Your task to perform on an android device: What's the weather? Image 0: 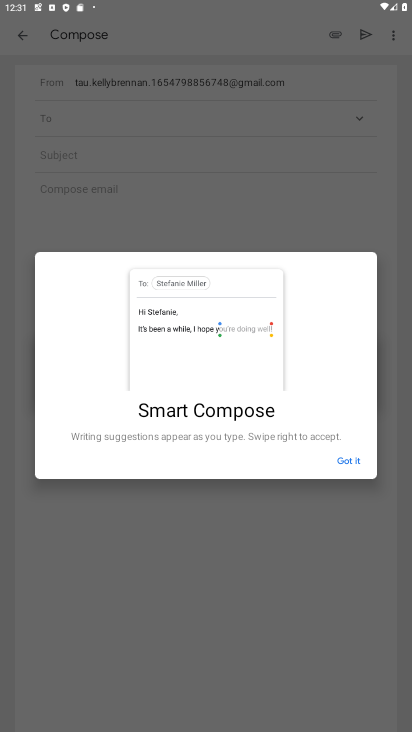
Step 0: press home button
Your task to perform on an android device: What's the weather? Image 1: 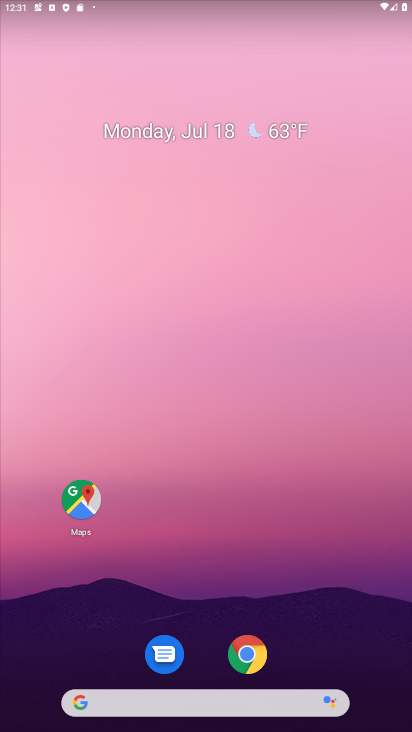
Step 1: drag from (221, 608) to (172, 121)
Your task to perform on an android device: What's the weather? Image 2: 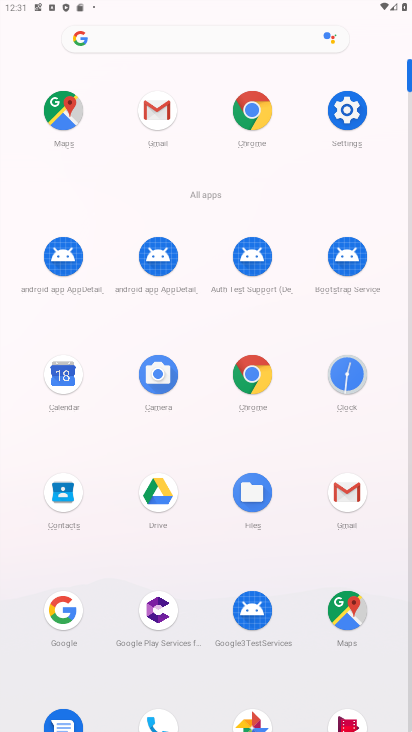
Step 2: click (75, 600)
Your task to perform on an android device: What's the weather? Image 3: 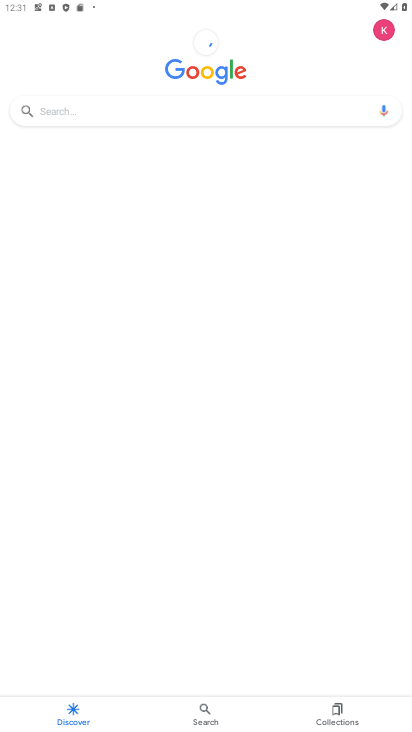
Step 3: click (164, 116)
Your task to perform on an android device: What's the weather? Image 4: 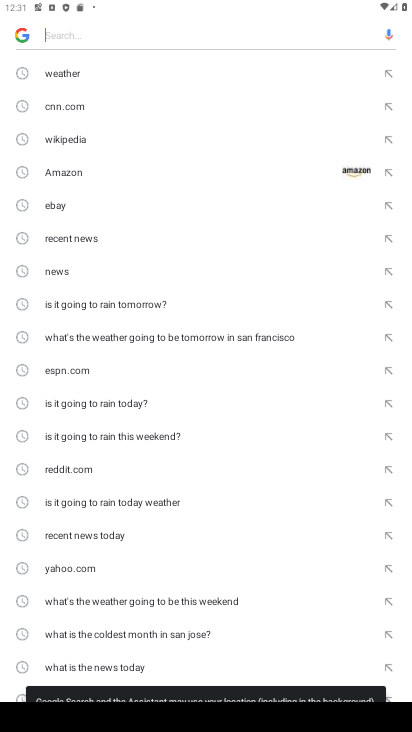
Step 4: click (55, 72)
Your task to perform on an android device: What's the weather? Image 5: 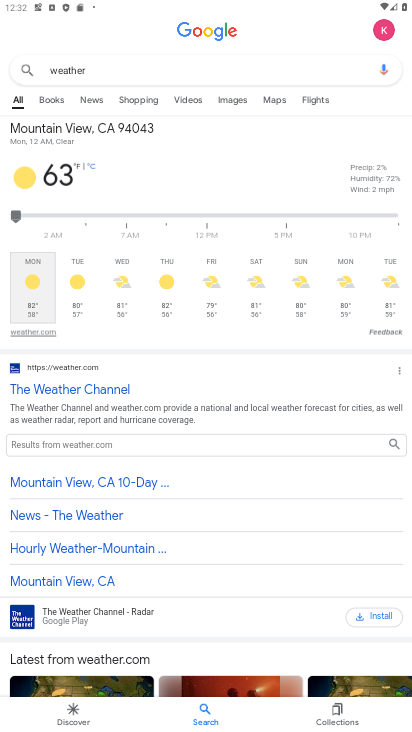
Step 5: task complete